Your task to perform on an android device: toggle javascript in the chrome app Image 0: 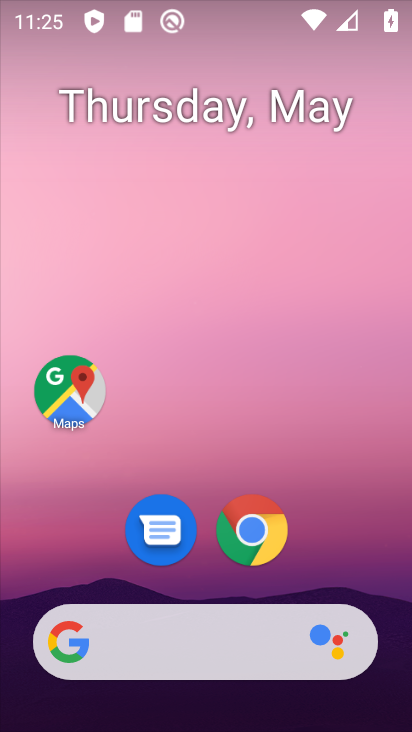
Step 0: click (262, 525)
Your task to perform on an android device: toggle javascript in the chrome app Image 1: 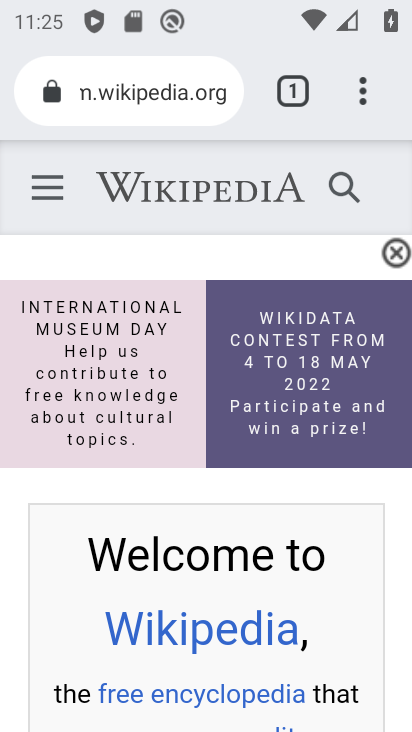
Step 1: click (357, 93)
Your task to perform on an android device: toggle javascript in the chrome app Image 2: 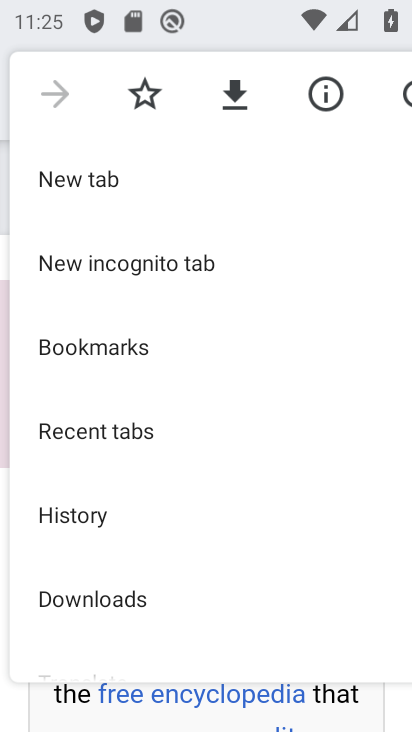
Step 2: drag from (150, 603) to (192, 306)
Your task to perform on an android device: toggle javascript in the chrome app Image 3: 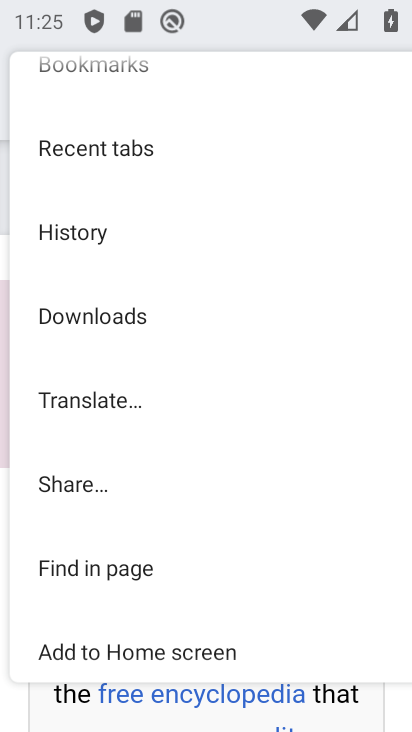
Step 3: drag from (96, 598) to (194, 320)
Your task to perform on an android device: toggle javascript in the chrome app Image 4: 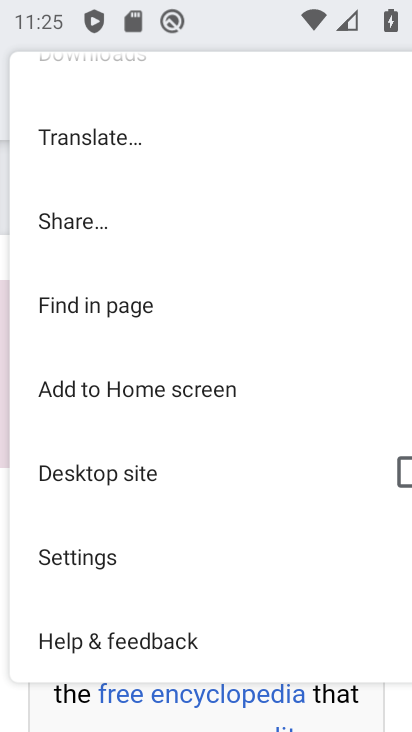
Step 4: click (153, 560)
Your task to perform on an android device: toggle javascript in the chrome app Image 5: 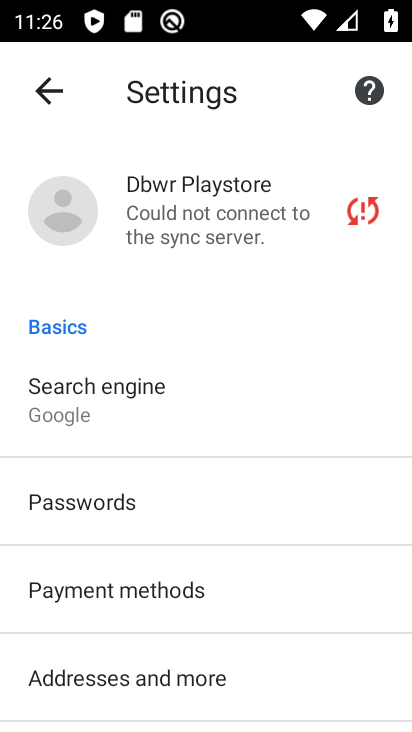
Step 5: drag from (153, 632) to (209, 331)
Your task to perform on an android device: toggle javascript in the chrome app Image 6: 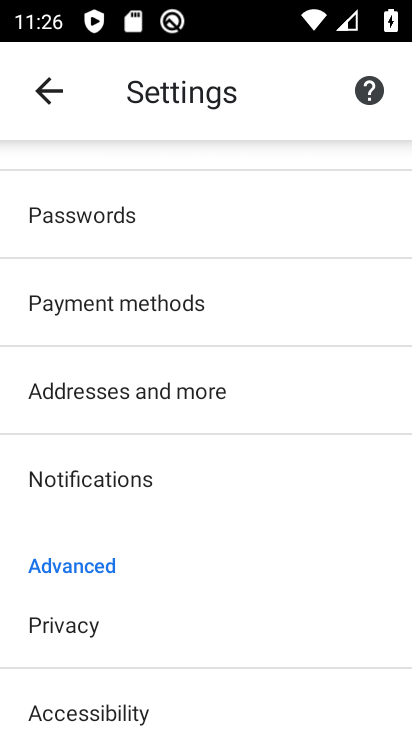
Step 6: drag from (168, 619) to (252, 282)
Your task to perform on an android device: toggle javascript in the chrome app Image 7: 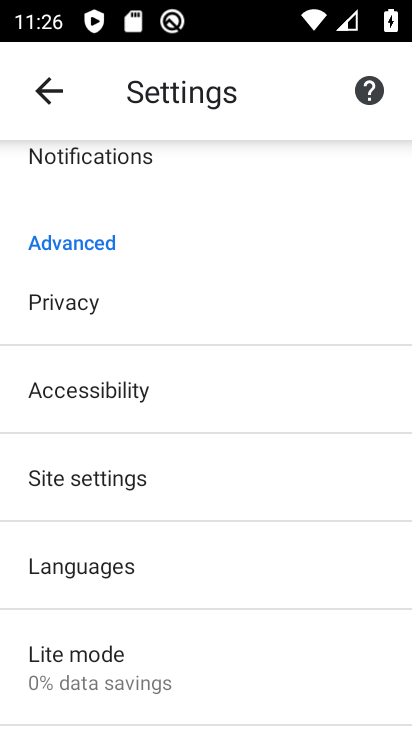
Step 7: click (140, 488)
Your task to perform on an android device: toggle javascript in the chrome app Image 8: 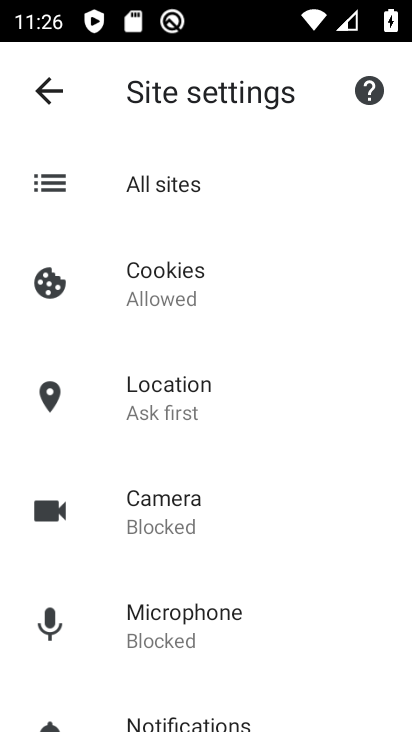
Step 8: drag from (261, 689) to (362, 383)
Your task to perform on an android device: toggle javascript in the chrome app Image 9: 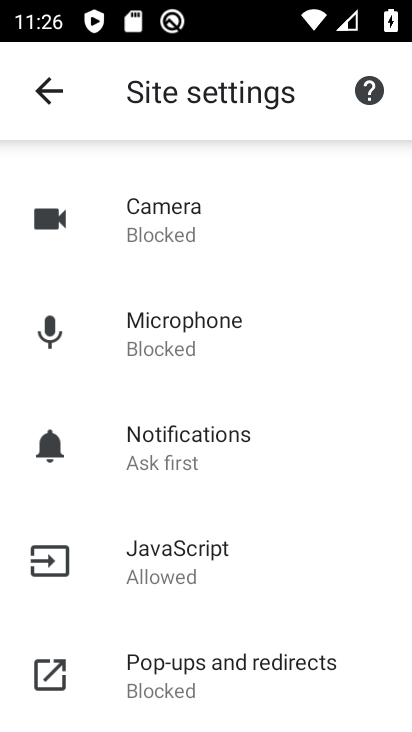
Step 9: click (188, 553)
Your task to perform on an android device: toggle javascript in the chrome app Image 10: 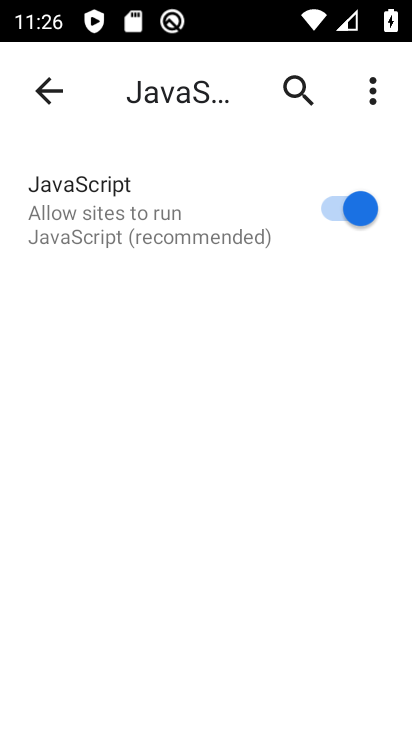
Step 10: click (315, 229)
Your task to perform on an android device: toggle javascript in the chrome app Image 11: 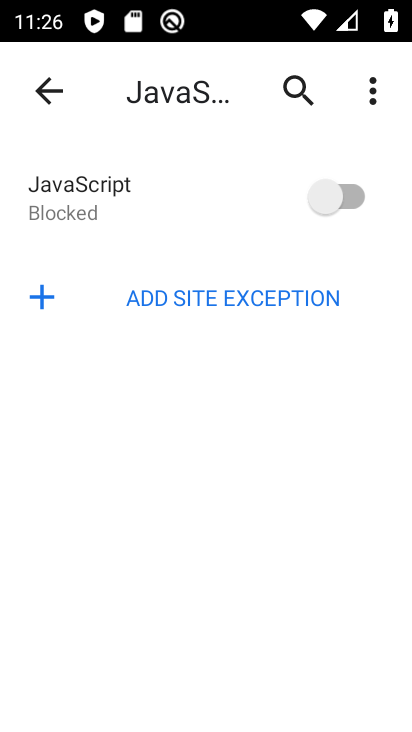
Step 11: task complete